Your task to perform on an android device: Open eBay Image 0: 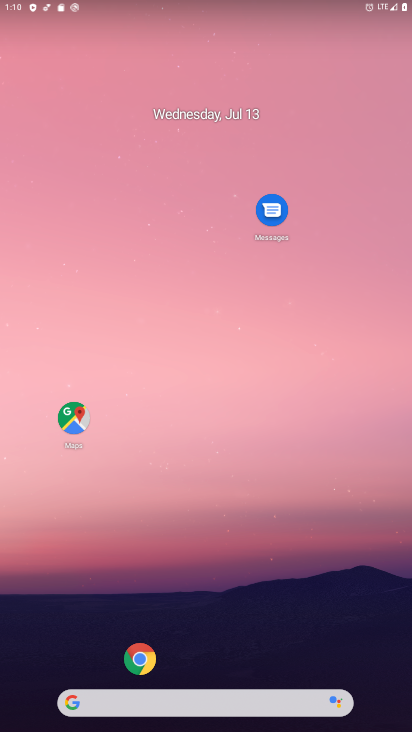
Step 0: click (147, 710)
Your task to perform on an android device: Open eBay Image 1: 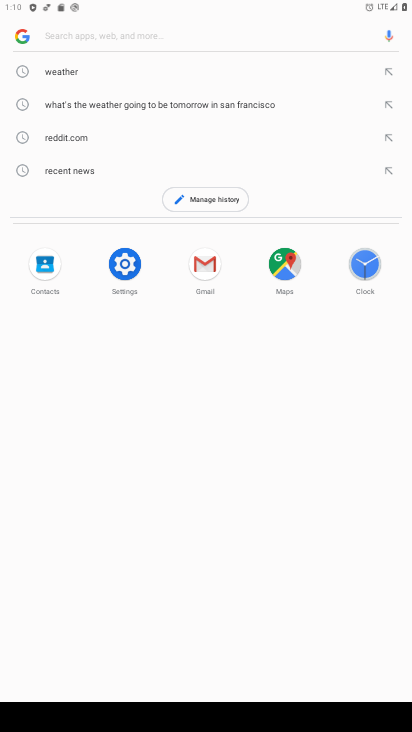
Step 1: type "eBay"
Your task to perform on an android device: Open eBay Image 2: 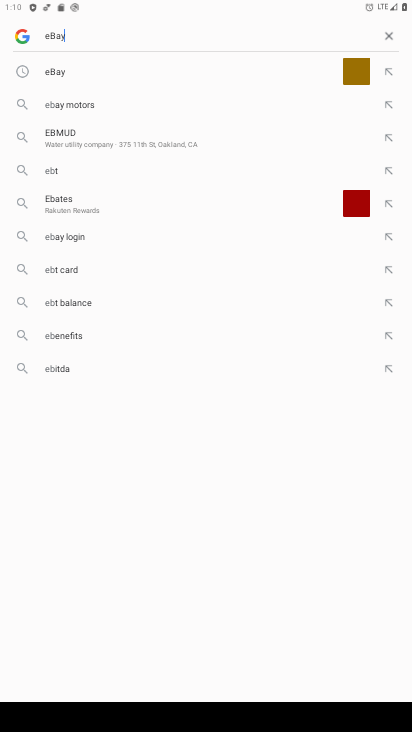
Step 2: type ""
Your task to perform on an android device: Open eBay Image 3: 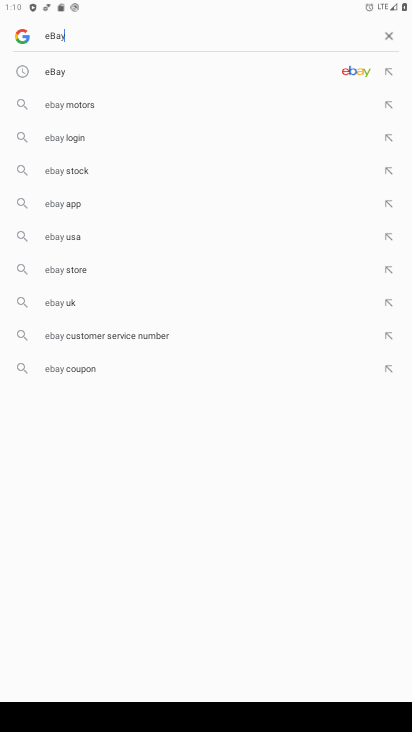
Step 3: click (66, 73)
Your task to perform on an android device: Open eBay Image 4: 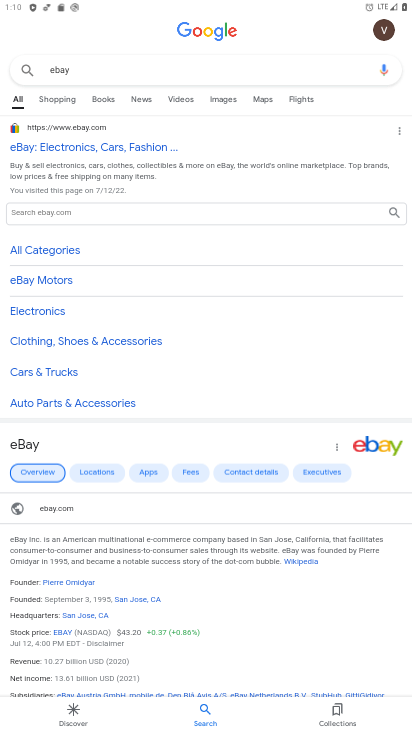
Step 4: task complete